Your task to perform on an android device: empty trash in google photos Image 0: 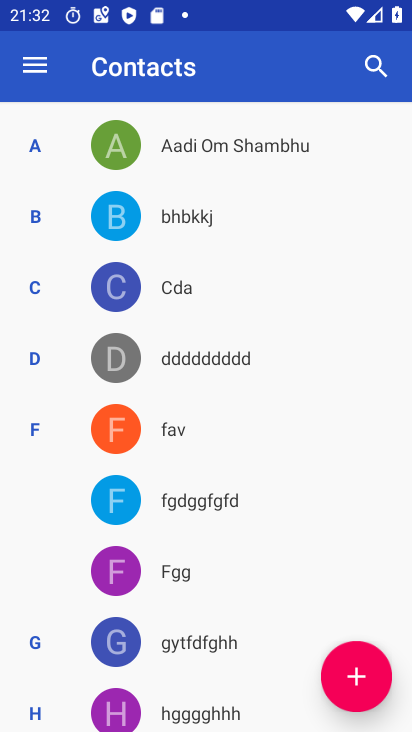
Step 0: press home button
Your task to perform on an android device: empty trash in google photos Image 1: 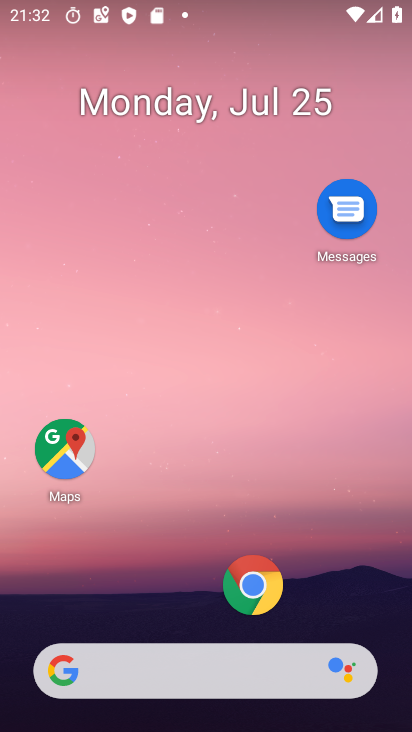
Step 1: drag from (179, 661) to (330, 133)
Your task to perform on an android device: empty trash in google photos Image 2: 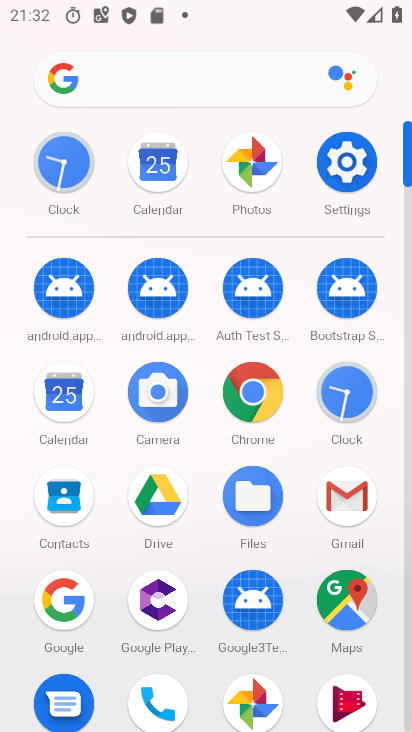
Step 2: drag from (188, 662) to (360, 188)
Your task to perform on an android device: empty trash in google photos Image 3: 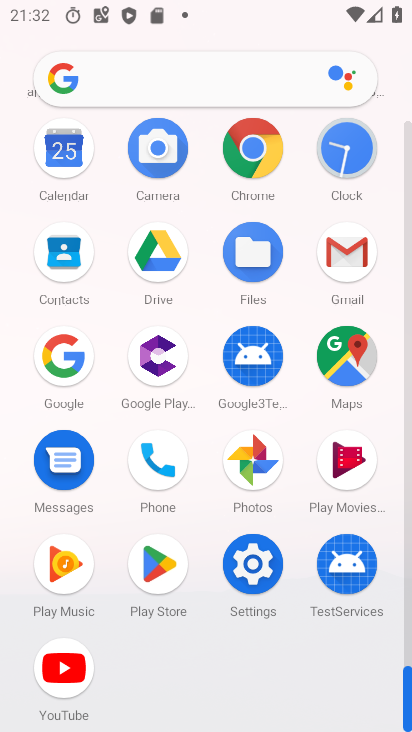
Step 3: click (255, 459)
Your task to perform on an android device: empty trash in google photos Image 4: 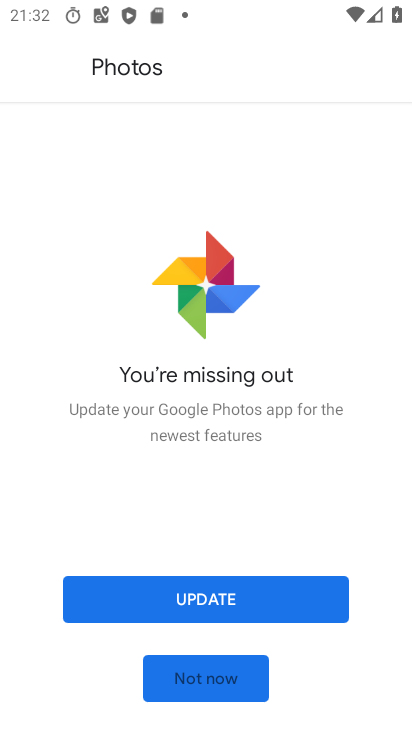
Step 4: click (212, 666)
Your task to perform on an android device: empty trash in google photos Image 5: 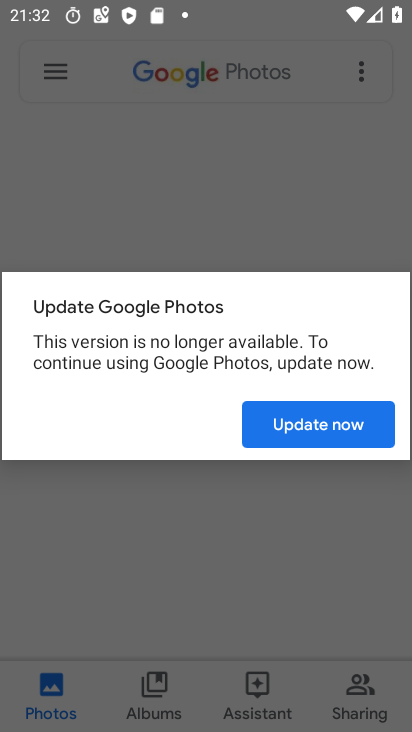
Step 5: click (324, 414)
Your task to perform on an android device: empty trash in google photos Image 6: 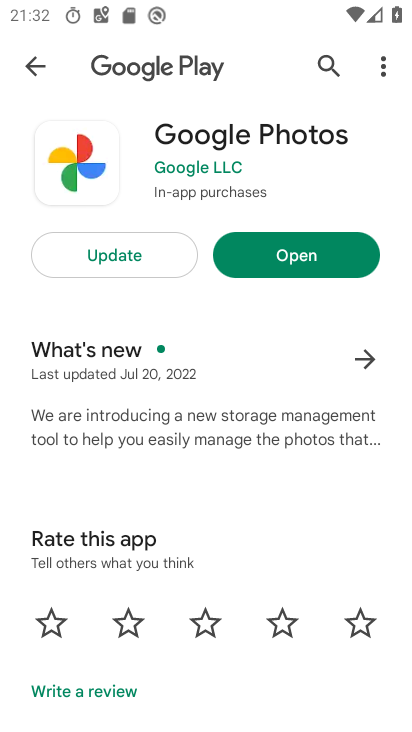
Step 6: click (315, 263)
Your task to perform on an android device: empty trash in google photos Image 7: 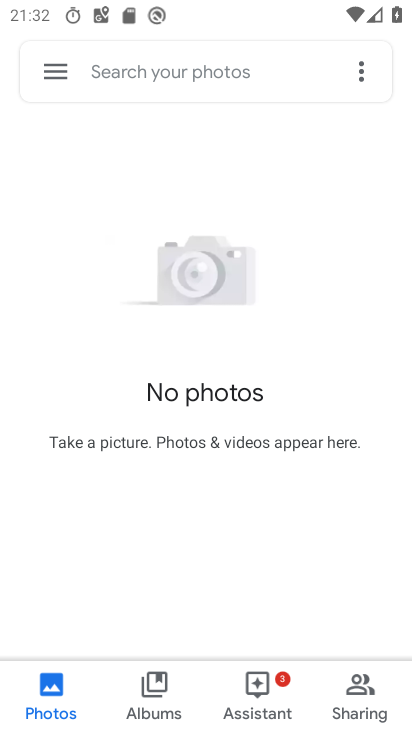
Step 7: click (62, 72)
Your task to perform on an android device: empty trash in google photos Image 8: 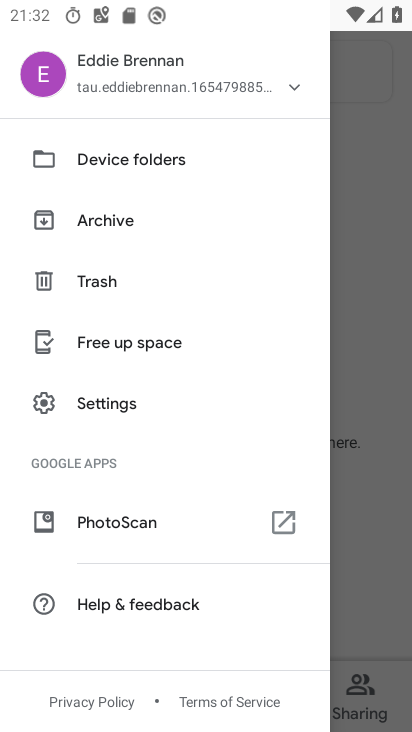
Step 8: click (109, 274)
Your task to perform on an android device: empty trash in google photos Image 9: 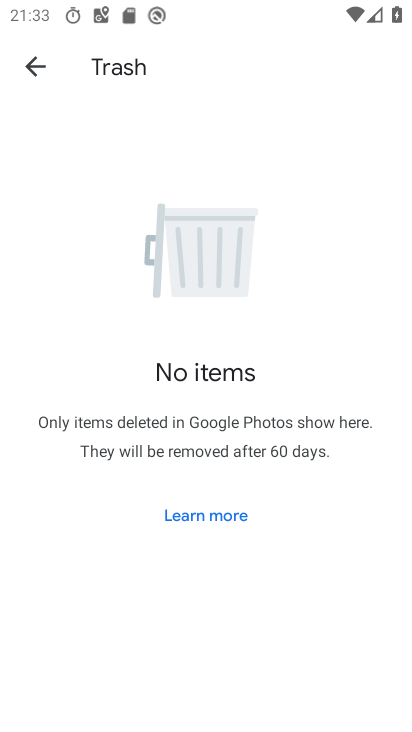
Step 9: task complete